Your task to perform on an android device: check data usage Image 0: 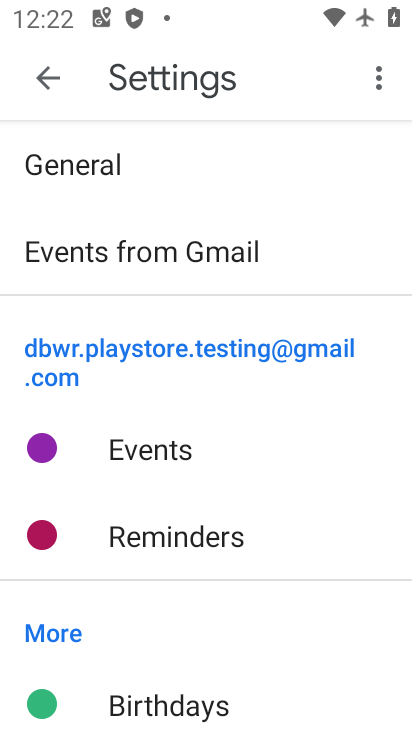
Step 0: press home button
Your task to perform on an android device: check data usage Image 1: 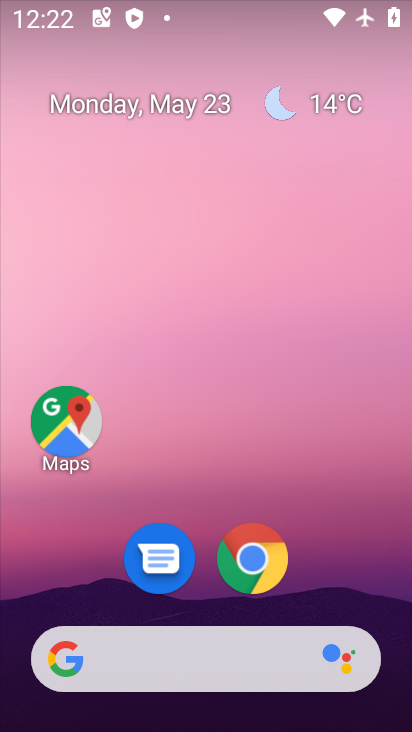
Step 1: drag from (329, 613) to (326, 13)
Your task to perform on an android device: check data usage Image 2: 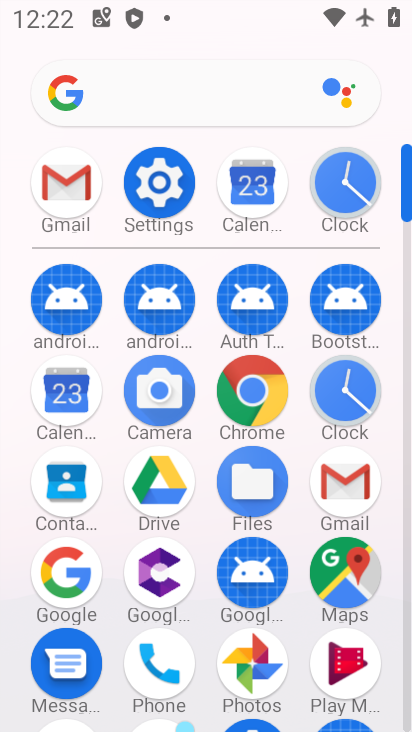
Step 2: click (166, 185)
Your task to perform on an android device: check data usage Image 3: 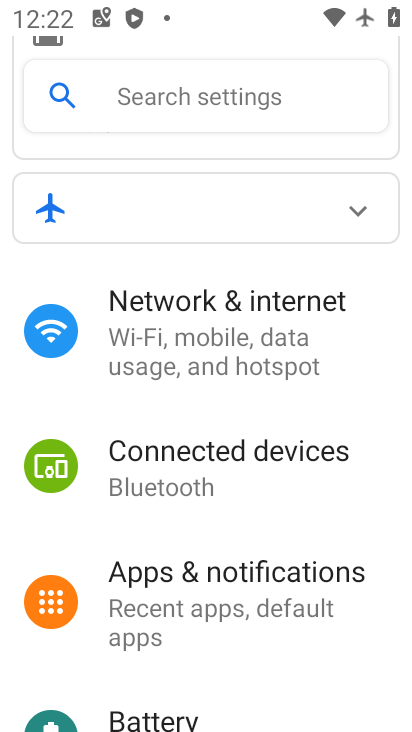
Step 3: click (187, 340)
Your task to perform on an android device: check data usage Image 4: 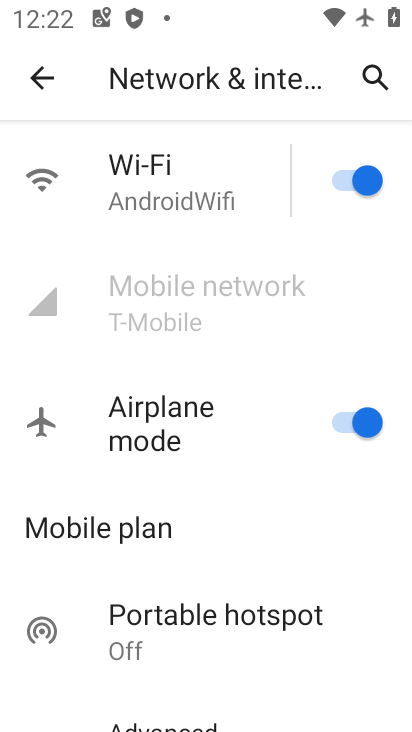
Step 4: task complete